Your task to perform on an android device: see sites visited before in the chrome app Image 0: 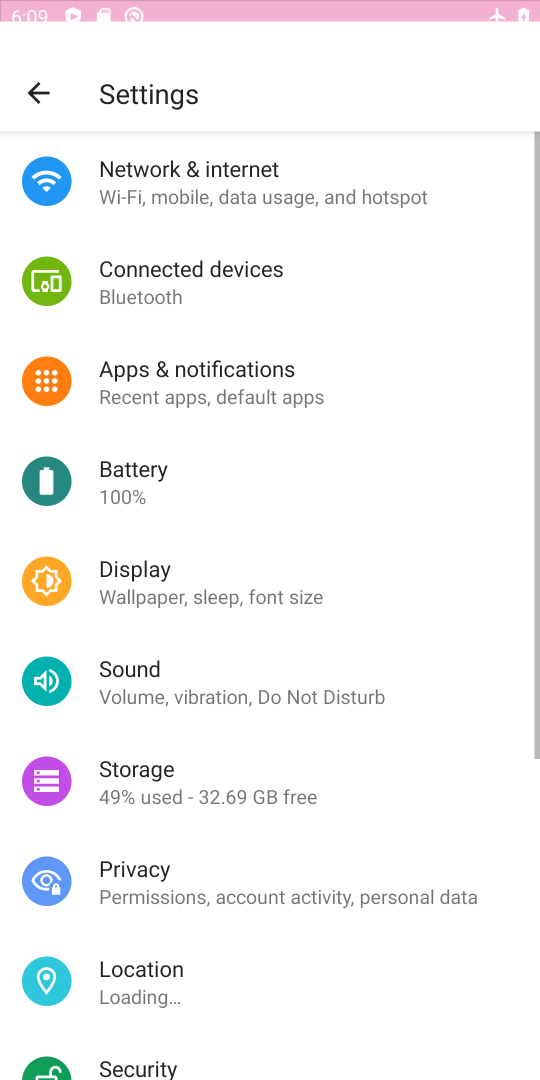
Step 0: press home button
Your task to perform on an android device: see sites visited before in the chrome app Image 1: 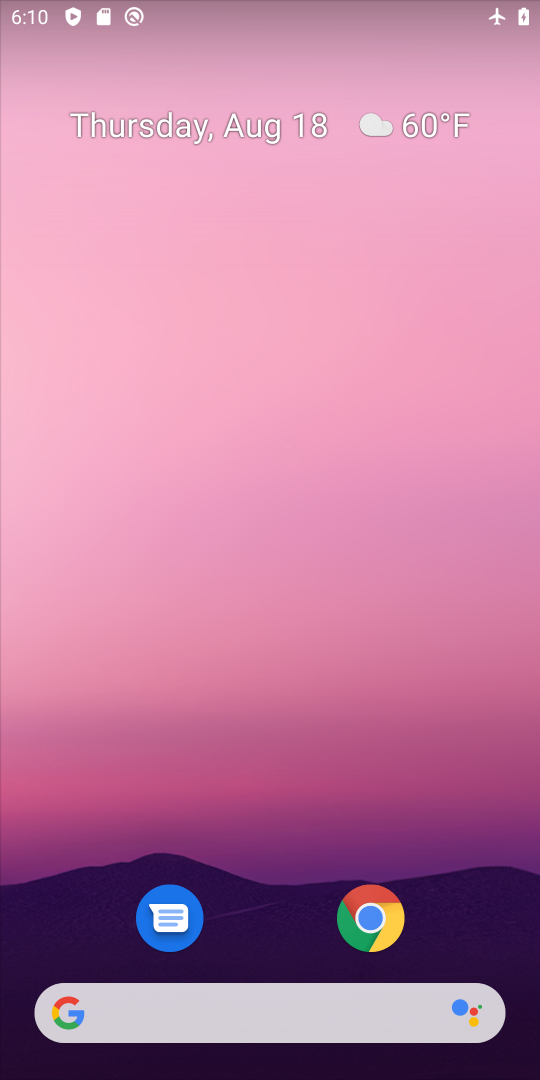
Step 1: click (369, 914)
Your task to perform on an android device: see sites visited before in the chrome app Image 2: 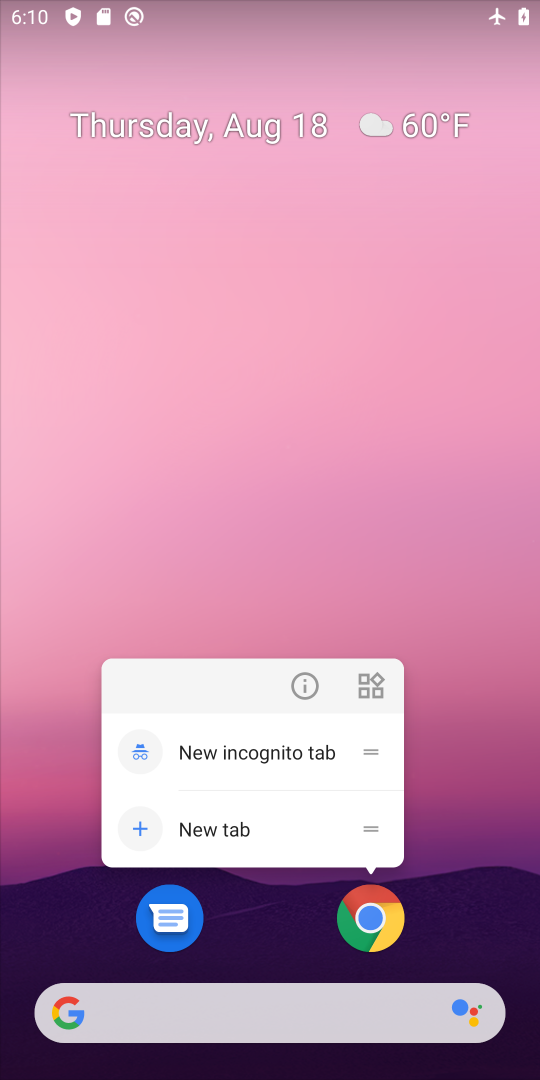
Step 2: click (369, 914)
Your task to perform on an android device: see sites visited before in the chrome app Image 3: 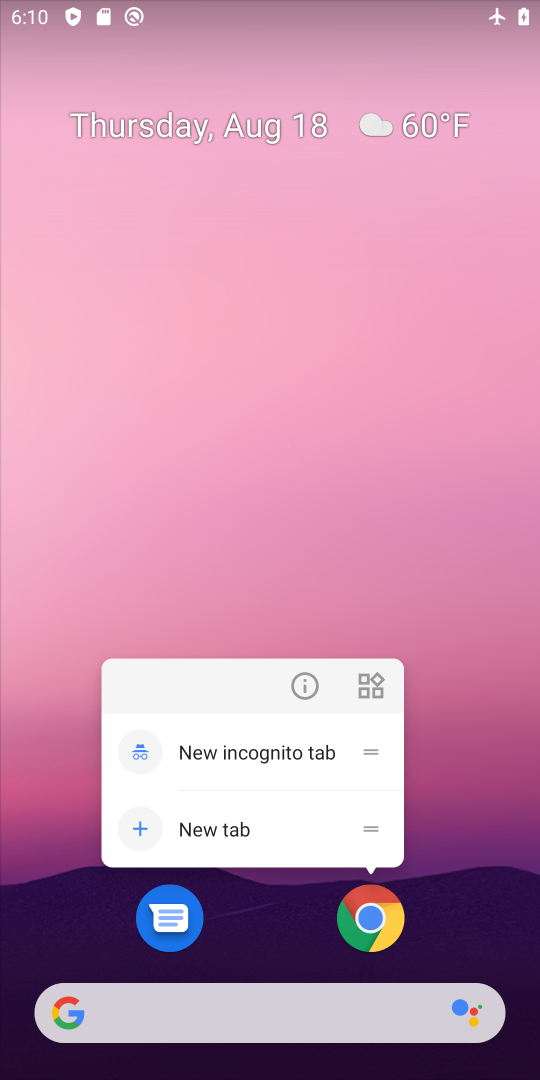
Step 3: click (385, 922)
Your task to perform on an android device: see sites visited before in the chrome app Image 4: 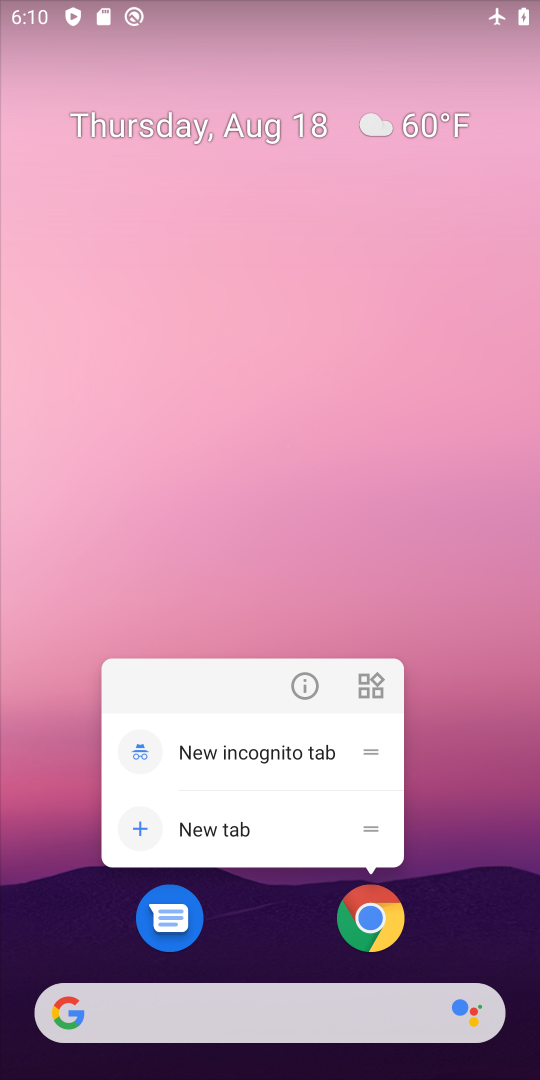
Step 4: click (365, 915)
Your task to perform on an android device: see sites visited before in the chrome app Image 5: 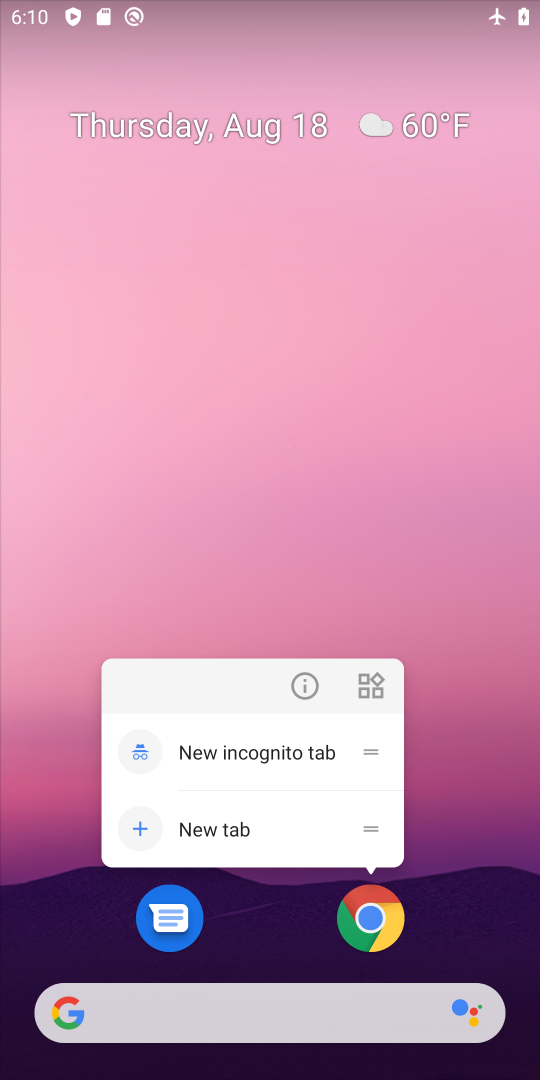
Step 5: click (365, 915)
Your task to perform on an android device: see sites visited before in the chrome app Image 6: 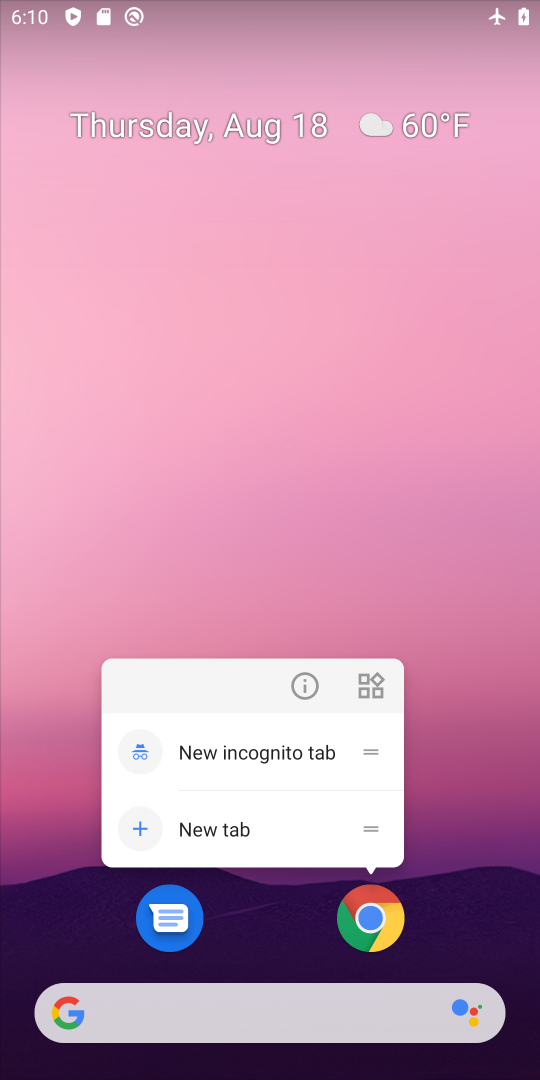
Step 6: click (374, 927)
Your task to perform on an android device: see sites visited before in the chrome app Image 7: 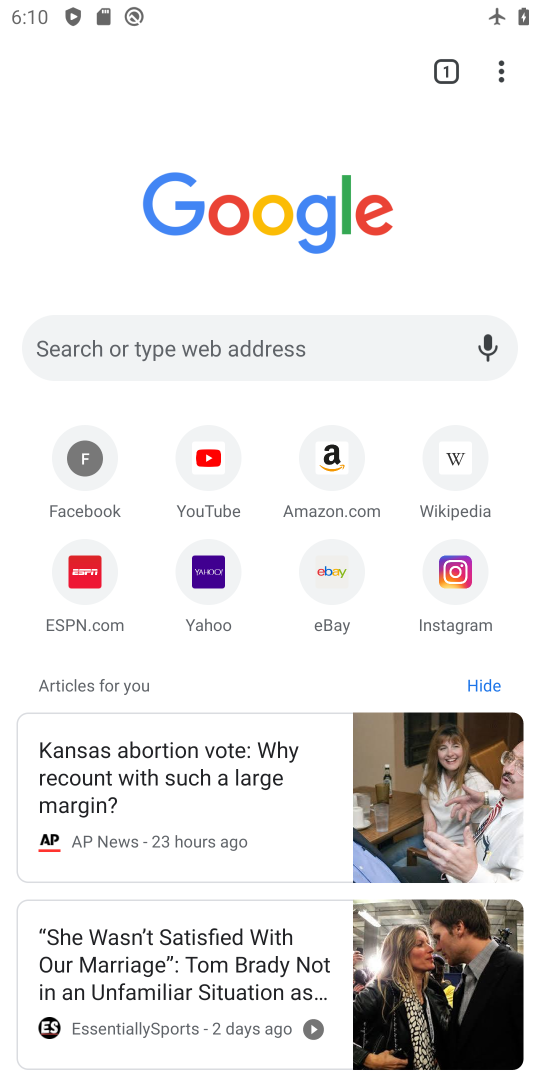
Step 7: task complete